Your task to perform on an android device: Open Google Image 0: 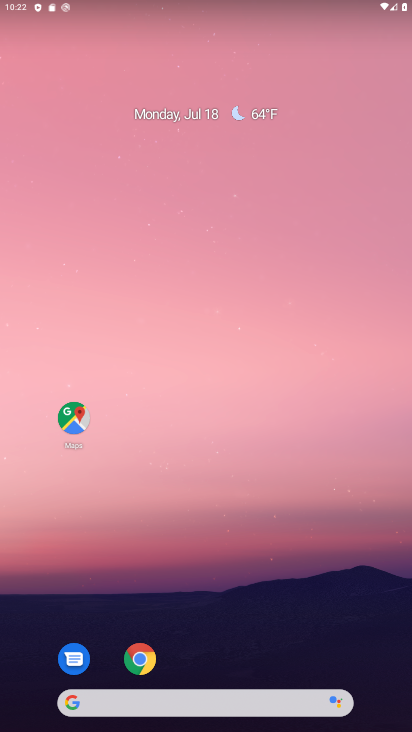
Step 0: drag from (218, 639) to (219, 171)
Your task to perform on an android device: Open Google Image 1: 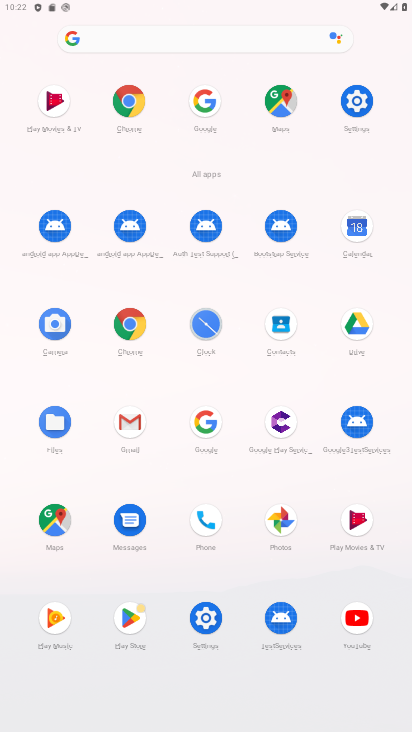
Step 1: click (202, 422)
Your task to perform on an android device: Open Google Image 2: 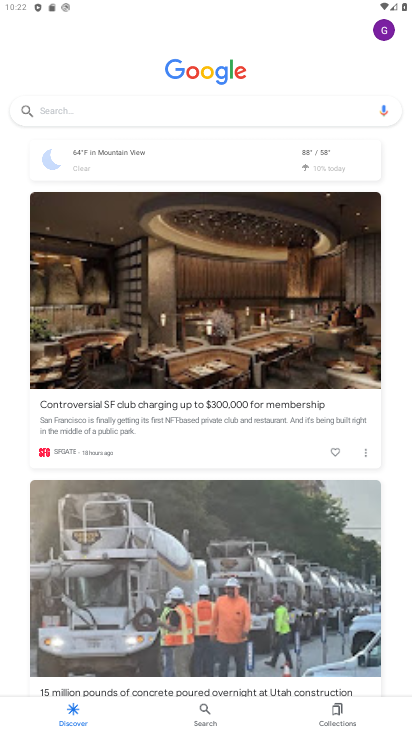
Step 2: task complete